Your task to perform on an android device: What is the news today? Image 0: 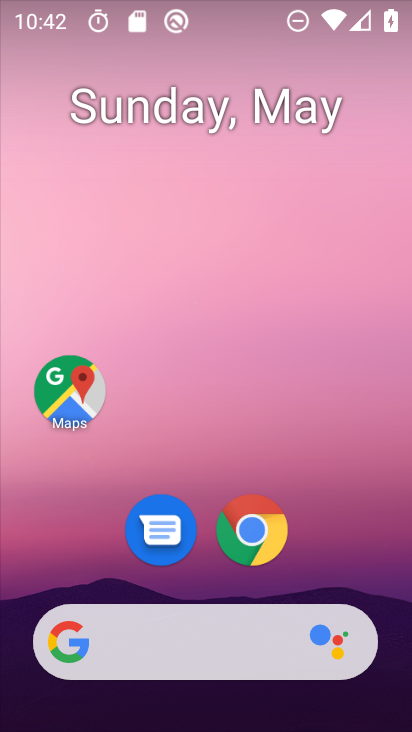
Step 0: drag from (284, 679) to (276, 81)
Your task to perform on an android device: What is the news today? Image 1: 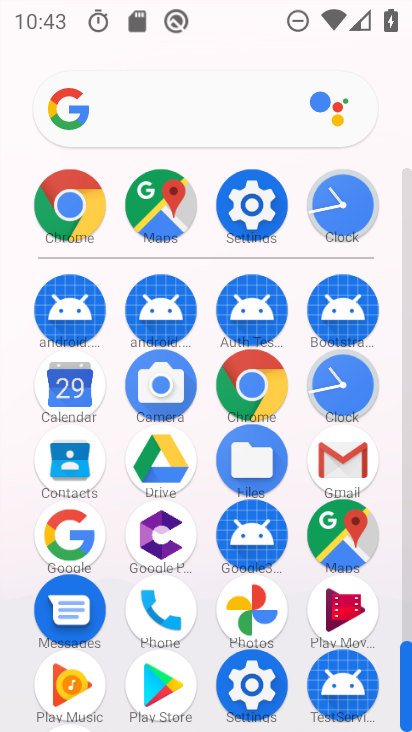
Step 1: click (159, 146)
Your task to perform on an android device: What is the news today? Image 2: 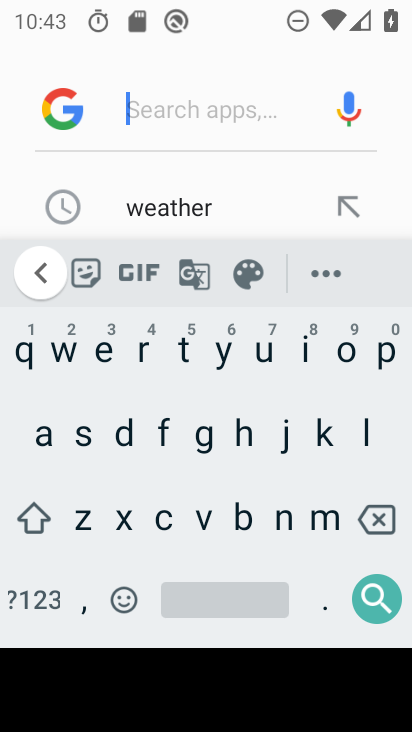
Step 2: click (263, 516)
Your task to perform on an android device: What is the news today? Image 3: 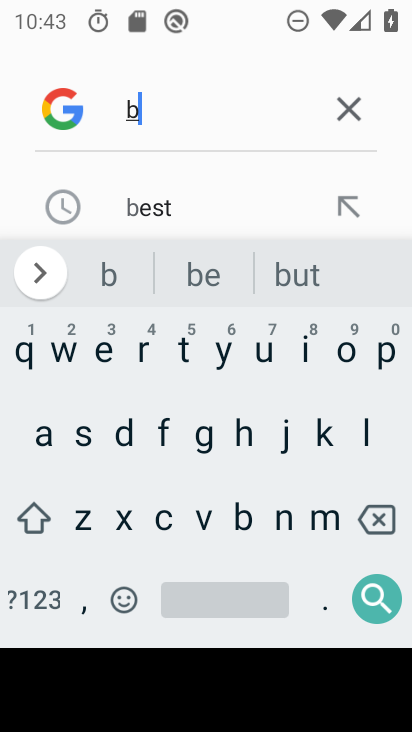
Step 3: click (106, 351)
Your task to perform on an android device: What is the news today? Image 4: 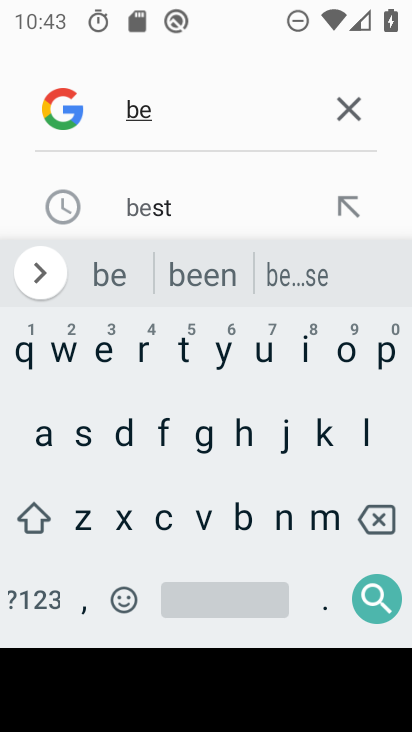
Step 4: click (391, 520)
Your task to perform on an android device: What is the news today? Image 5: 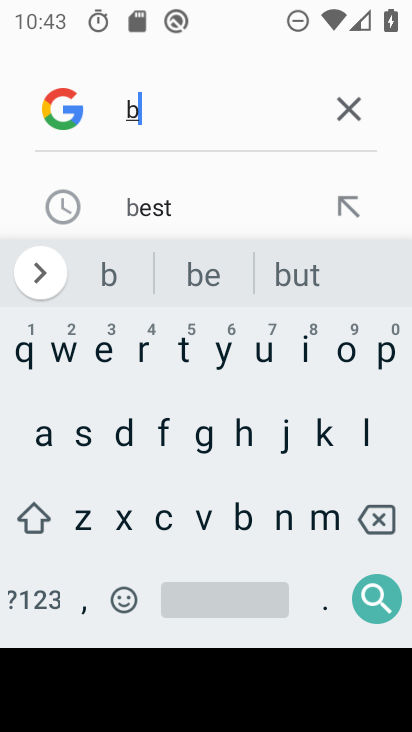
Step 5: click (386, 520)
Your task to perform on an android device: What is the news today? Image 6: 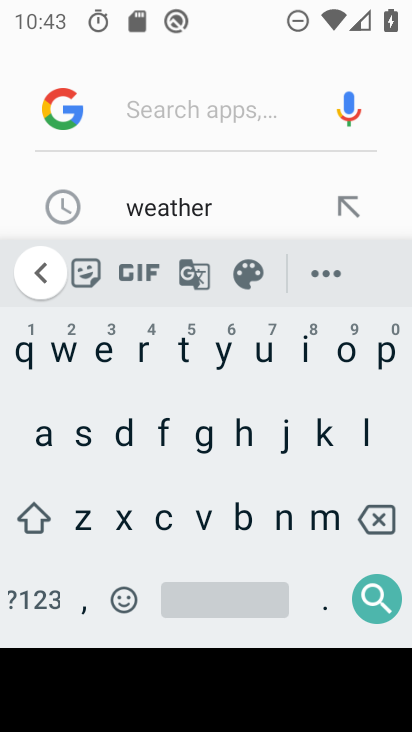
Step 6: click (271, 526)
Your task to perform on an android device: What is the news today? Image 7: 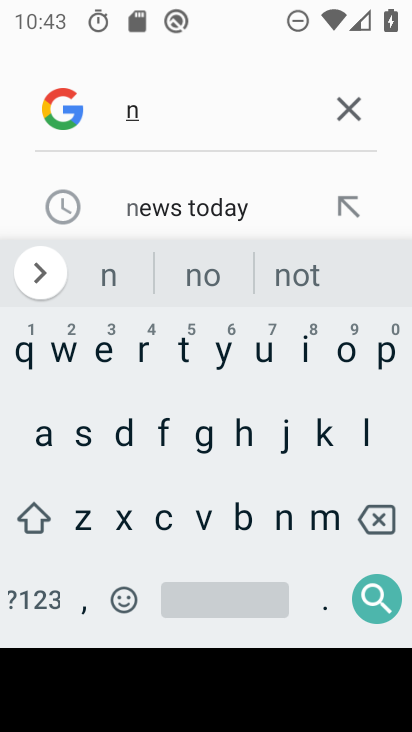
Step 7: click (96, 353)
Your task to perform on an android device: What is the news today? Image 8: 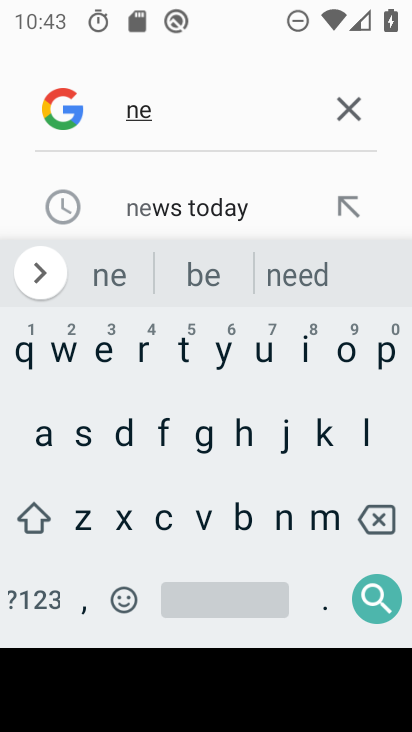
Step 8: click (210, 211)
Your task to perform on an android device: What is the news today? Image 9: 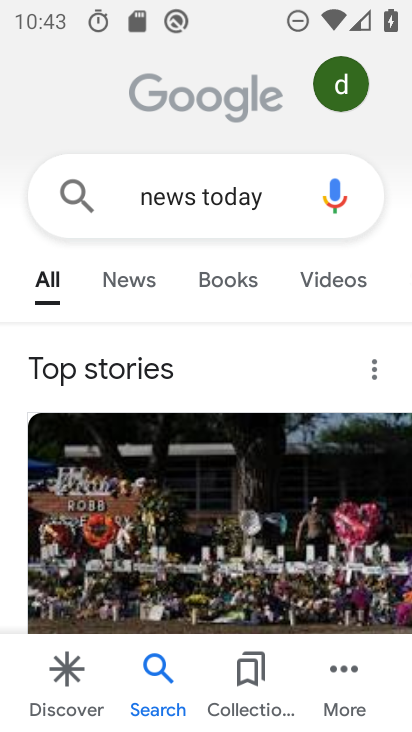
Step 9: task complete